Your task to perform on an android device: Go to Yahoo.com Image 0: 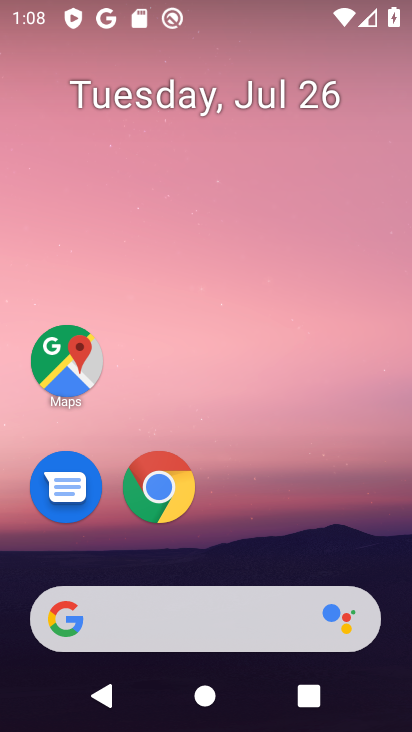
Step 0: click (180, 498)
Your task to perform on an android device: Go to Yahoo.com Image 1: 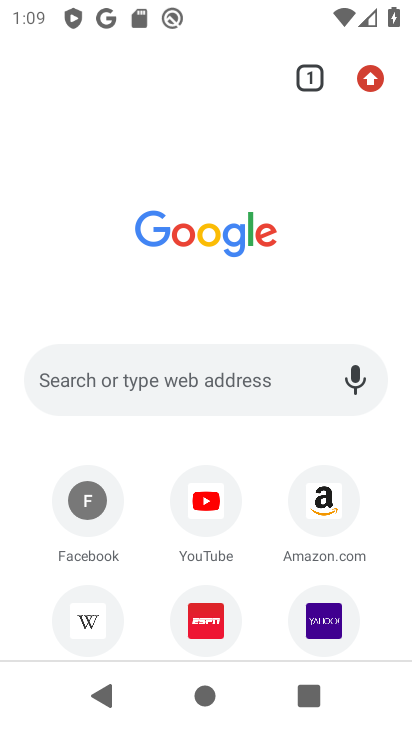
Step 1: click (136, 394)
Your task to perform on an android device: Go to Yahoo.com Image 2: 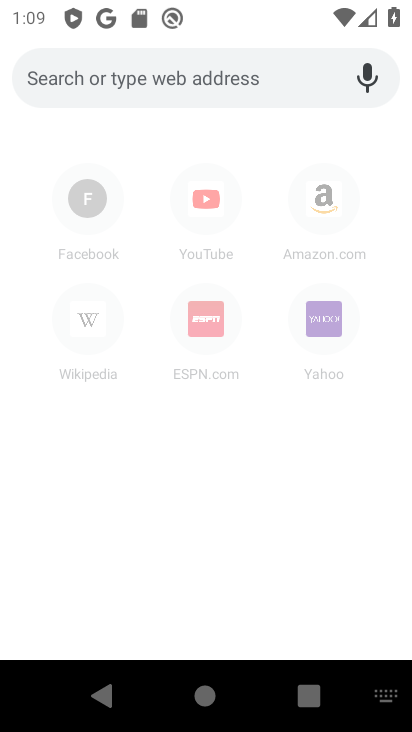
Step 2: type "yahoo"
Your task to perform on an android device: Go to Yahoo.com Image 3: 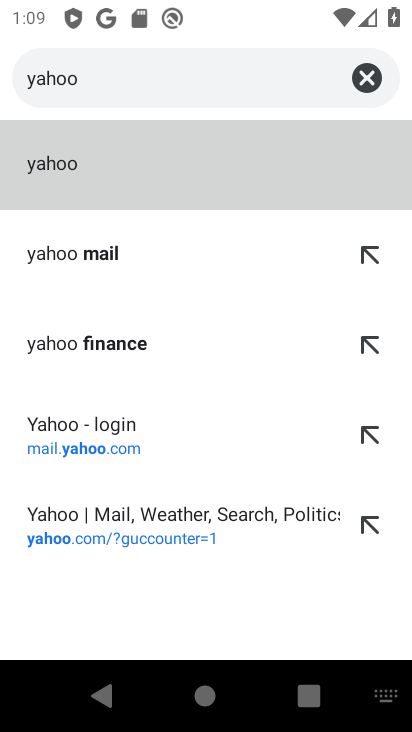
Step 3: click (214, 433)
Your task to perform on an android device: Go to Yahoo.com Image 4: 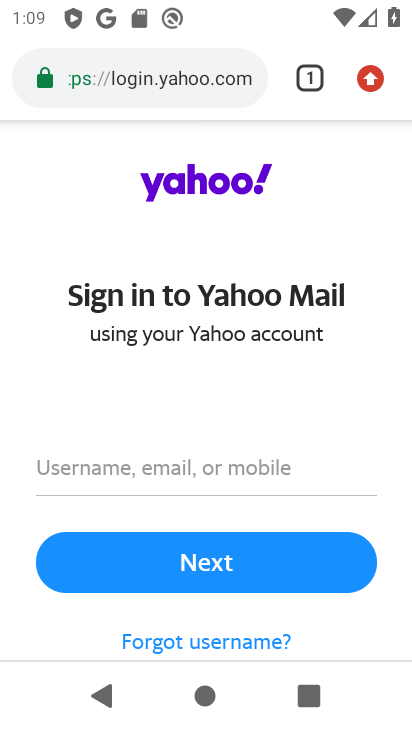
Step 4: task complete